Your task to perform on an android device: turn notification dots on Image 0: 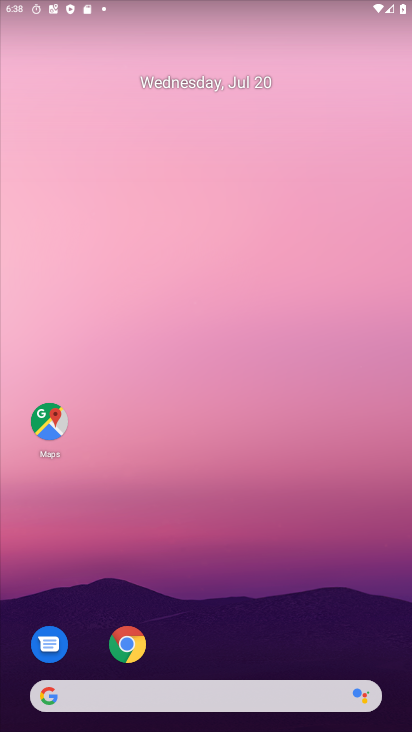
Step 0: press home button
Your task to perform on an android device: turn notification dots on Image 1: 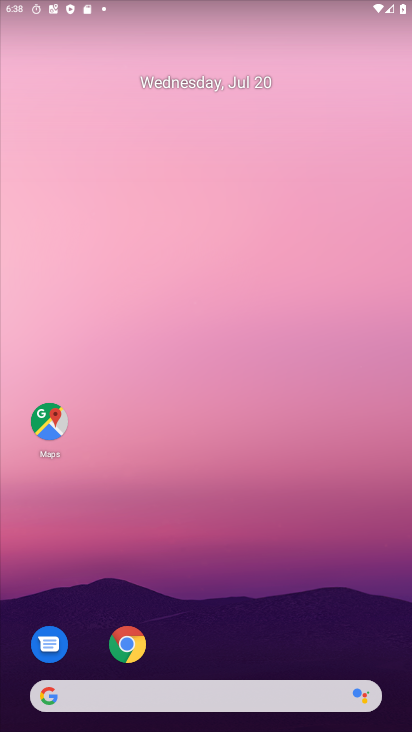
Step 1: drag from (230, 564) to (237, 49)
Your task to perform on an android device: turn notification dots on Image 2: 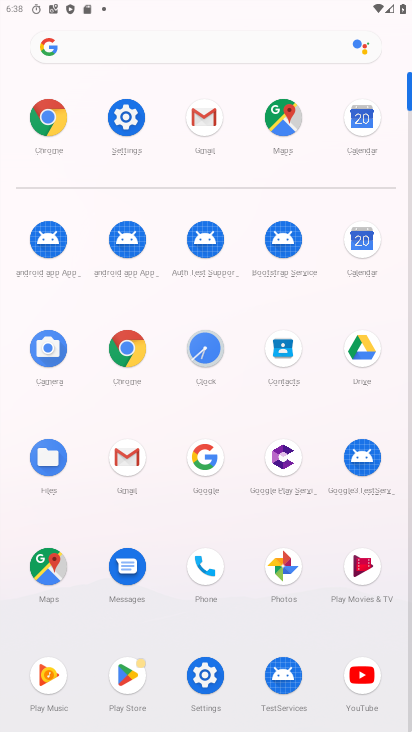
Step 2: click (127, 117)
Your task to perform on an android device: turn notification dots on Image 3: 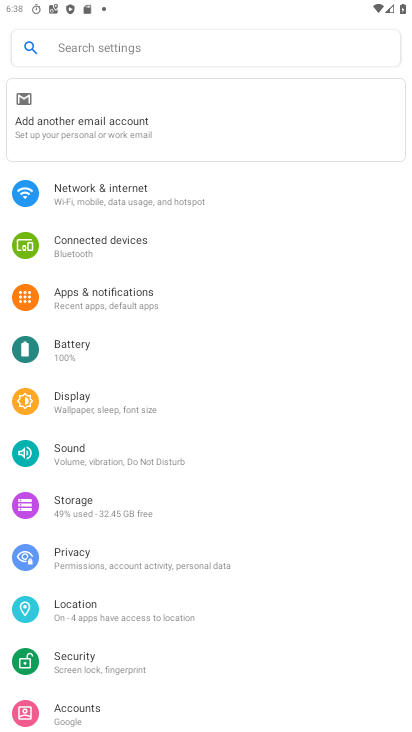
Step 3: click (90, 300)
Your task to perform on an android device: turn notification dots on Image 4: 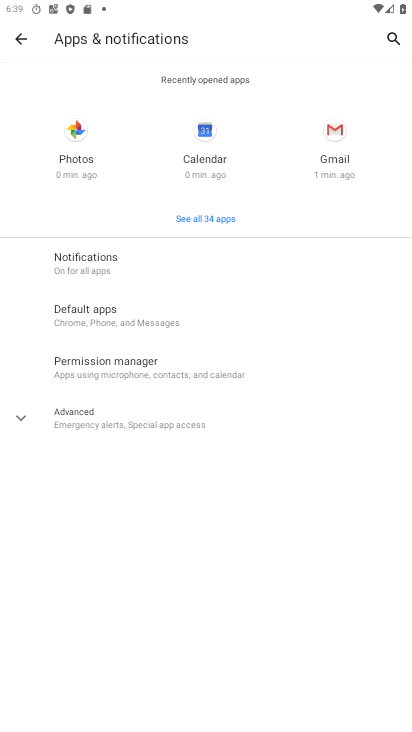
Step 4: click (79, 263)
Your task to perform on an android device: turn notification dots on Image 5: 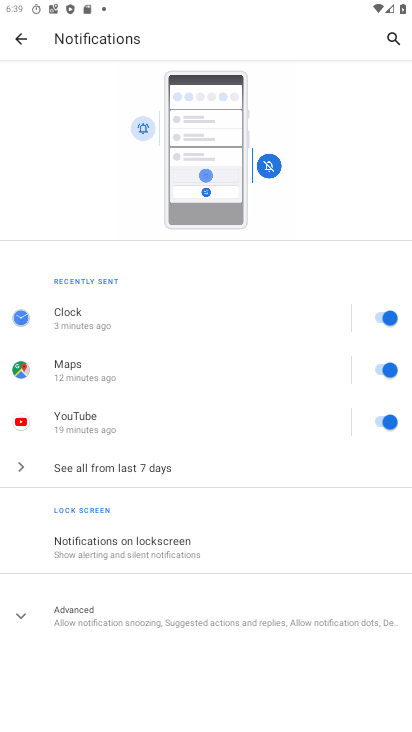
Step 5: click (73, 617)
Your task to perform on an android device: turn notification dots on Image 6: 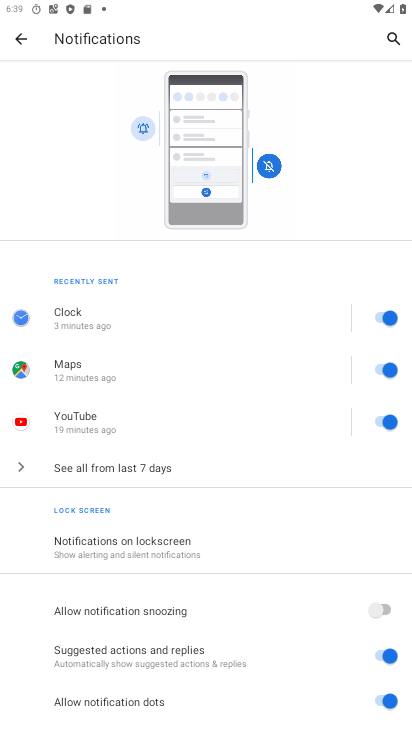
Step 6: task complete